Your task to perform on an android device: toggle show notifications on the lock screen Image 0: 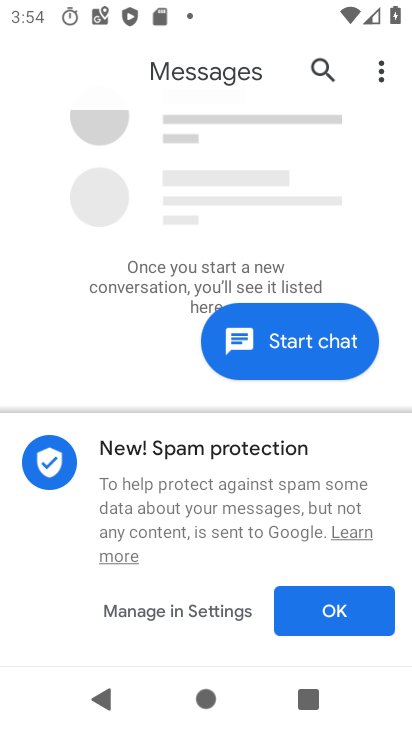
Step 0: press back button
Your task to perform on an android device: toggle show notifications on the lock screen Image 1: 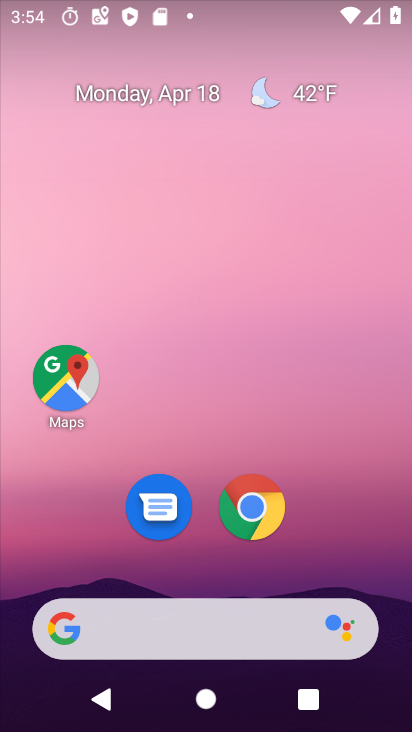
Step 1: drag from (199, 559) to (184, 61)
Your task to perform on an android device: toggle show notifications on the lock screen Image 2: 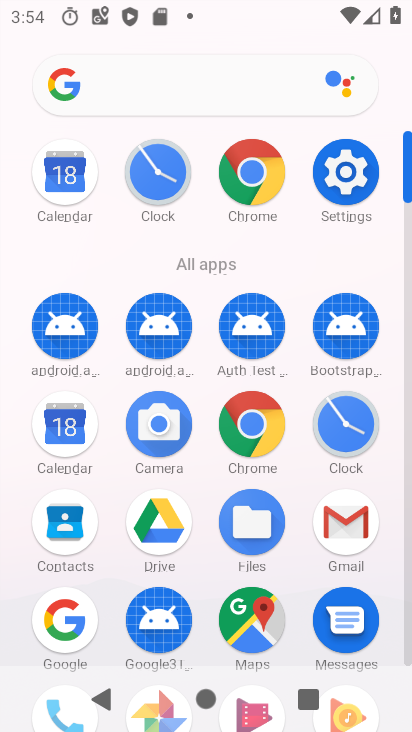
Step 2: click (329, 177)
Your task to perform on an android device: toggle show notifications on the lock screen Image 3: 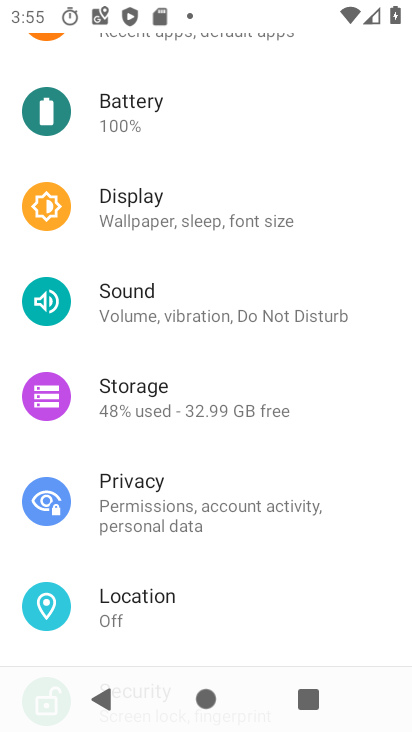
Step 3: drag from (170, 395) to (188, 518)
Your task to perform on an android device: toggle show notifications on the lock screen Image 4: 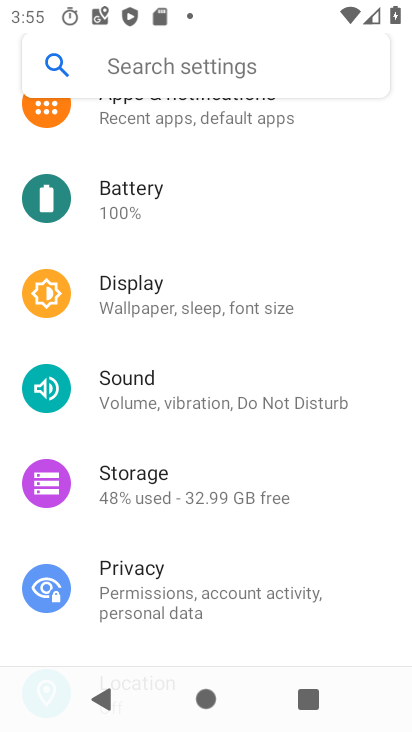
Step 4: drag from (180, 341) to (205, 484)
Your task to perform on an android device: toggle show notifications on the lock screen Image 5: 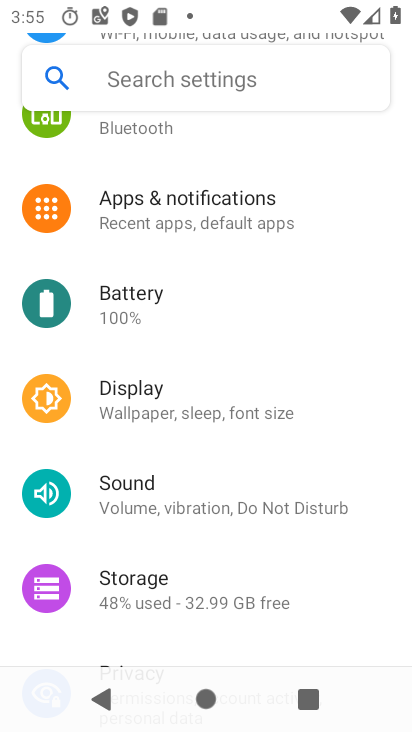
Step 5: click (217, 212)
Your task to perform on an android device: toggle show notifications on the lock screen Image 6: 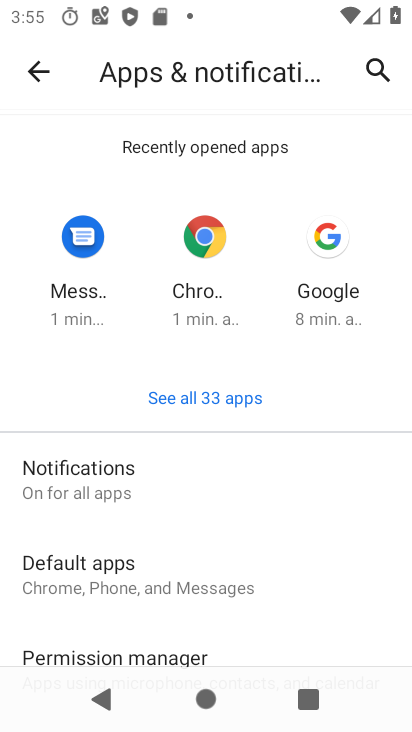
Step 6: click (212, 473)
Your task to perform on an android device: toggle show notifications on the lock screen Image 7: 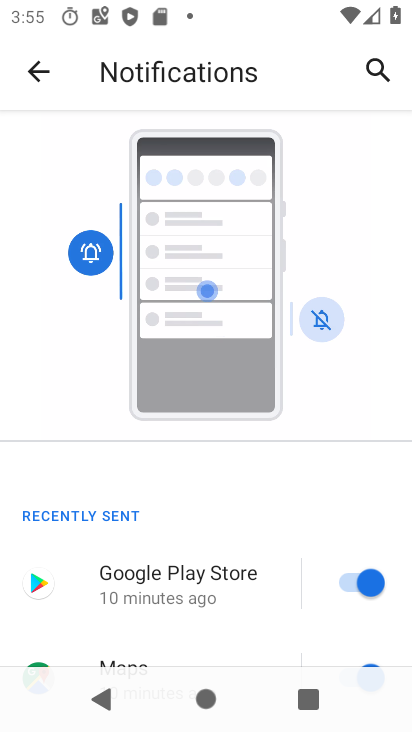
Step 7: drag from (215, 564) to (169, 417)
Your task to perform on an android device: toggle show notifications on the lock screen Image 8: 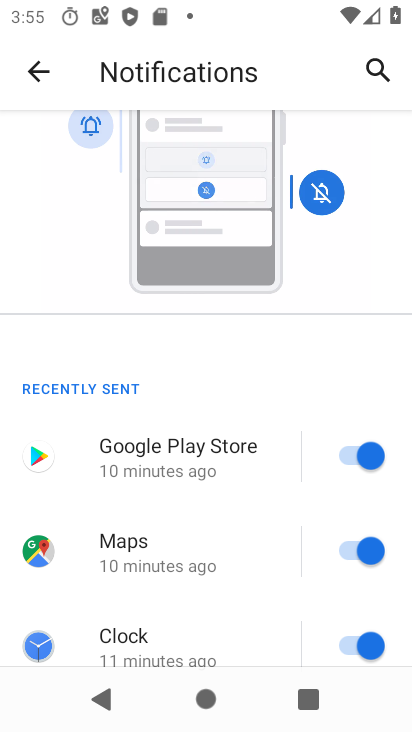
Step 8: drag from (221, 565) to (189, 401)
Your task to perform on an android device: toggle show notifications on the lock screen Image 9: 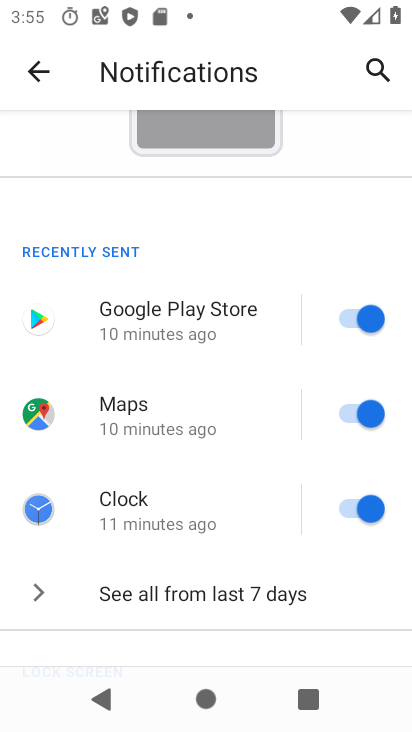
Step 9: drag from (221, 640) to (224, 412)
Your task to perform on an android device: toggle show notifications on the lock screen Image 10: 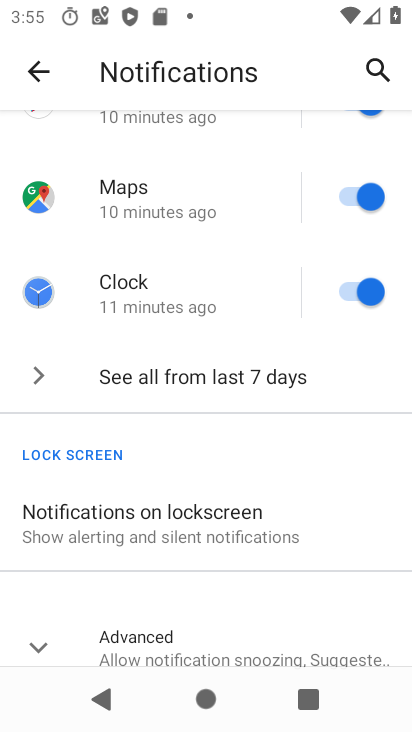
Step 10: click (209, 520)
Your task to perform on an android device: toggle show notifications on the lock screen Image 11: 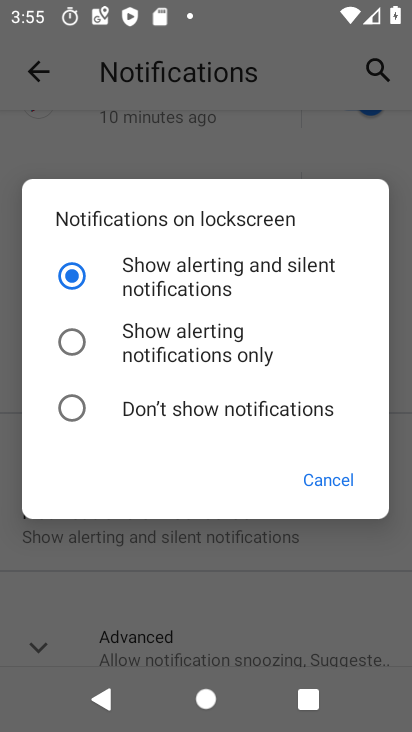
Step 11: click (184, 341)
Your task to perform on an android device: toggle show notifications on the lock screen Image 12: 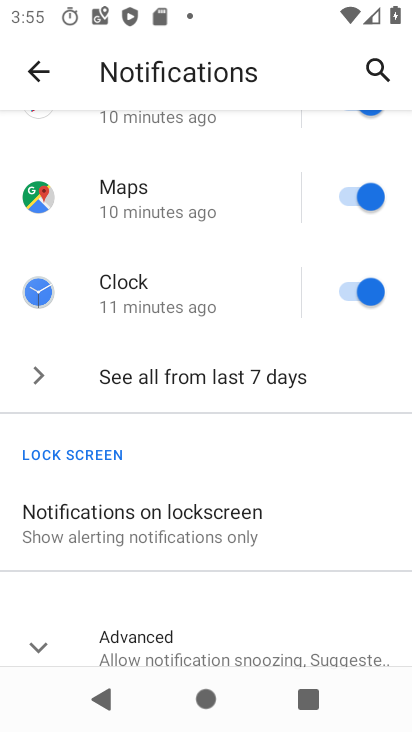
Step 12: task complete